Your task to perform on an android device: turn pop-ups off in chrome Image 0: 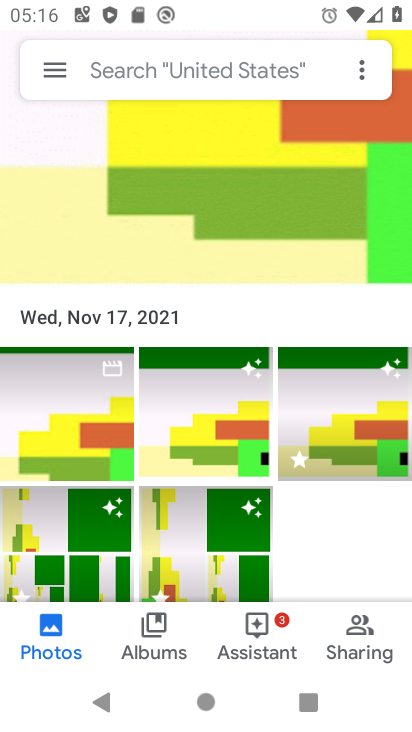
Step 0: press home button
Your task to perform on an android device: turn pop-ups off in chrome Image 1: 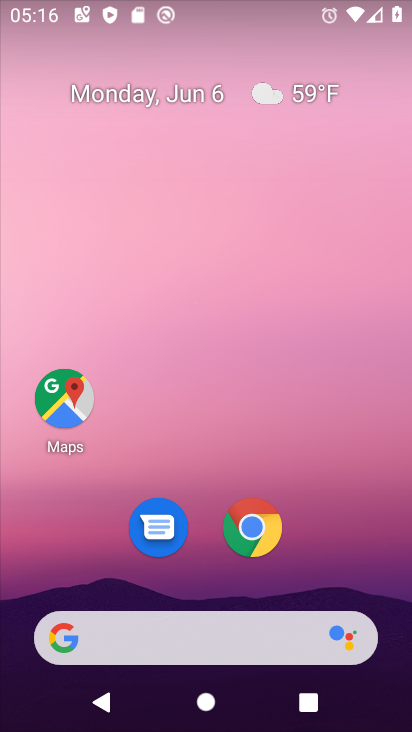
Step 1: drag from (394, 729) to (387, 471)
Your task to perform on an android device: turn pop-ups off in chrome Image 2: 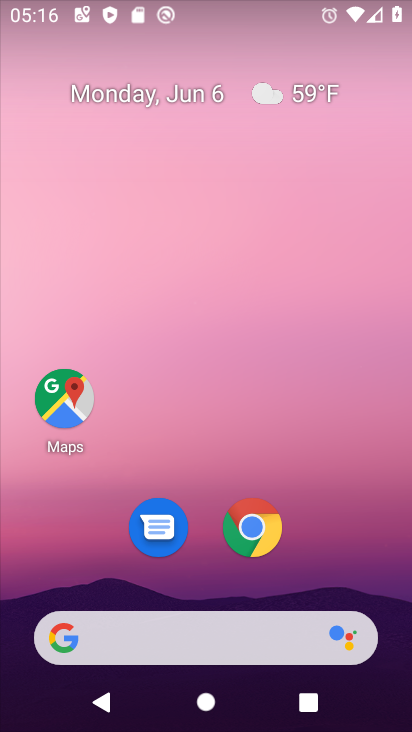
Step 2: click (261, 523)
Your task to perform on an android device: turn pop-ups off in chrome Image 3: 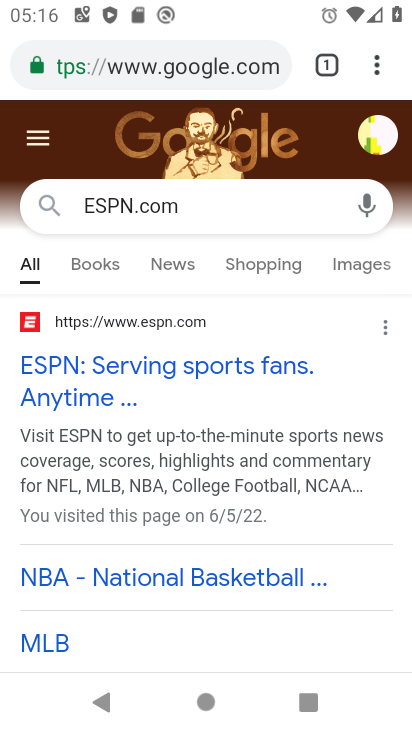
Step 3: click (375, 64)
Your task to perform on an android device: turn pop-ups off in chrome Image 4: 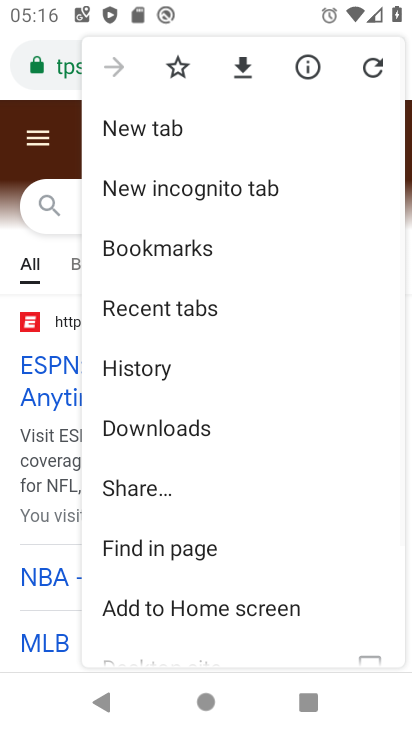
Step 4: drag from (282, 571) to (290, 325)
Your task to perform on an android device: turn pop-ups off in chrome Image 5: 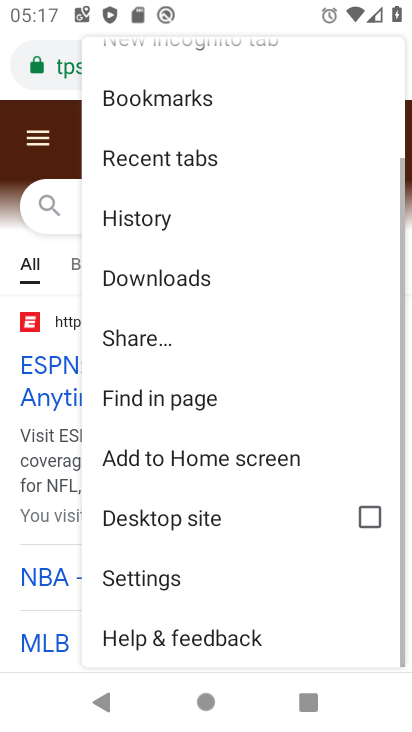
Step 5: click (151, 569)
Your task to perform on an android device: turn pop-ups off in chrome Image 6: 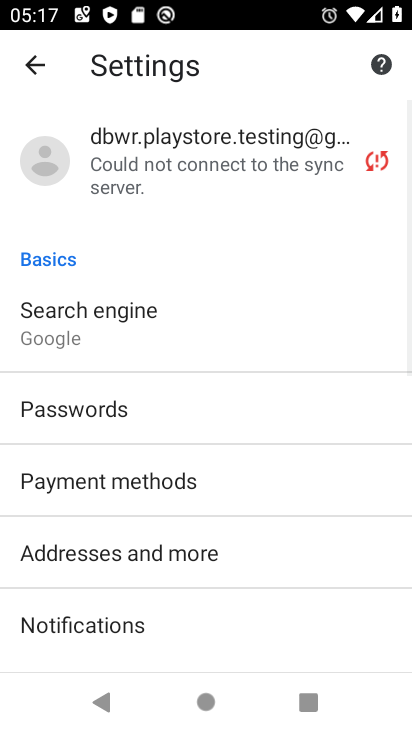
Step 6: drag from (247, 628) to (216, 273)
Your task to perform on an android device: turn pop-ups off in chrome Image 7: 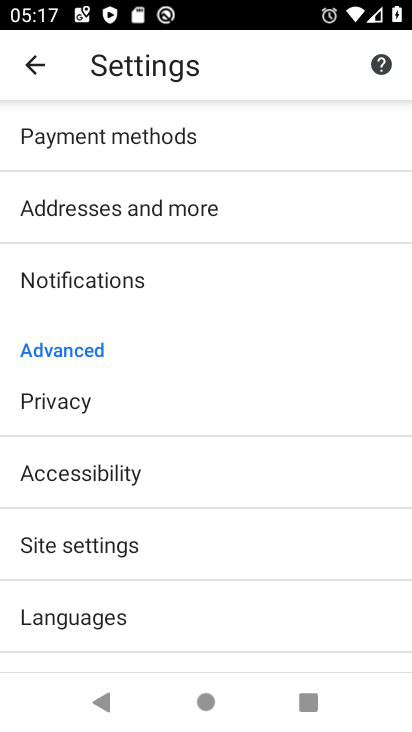
Step 7: drag from (241, 597) to (235, 317)
Your task to perform on an android device: turn pop-ups off in chrome Image 8: 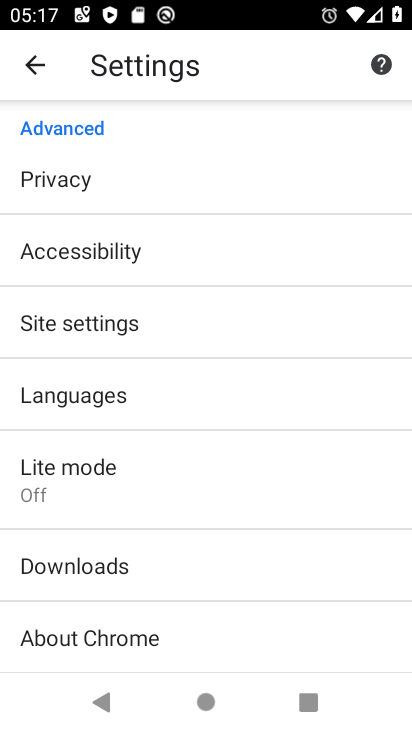
Step 8: drag from (265, 570) to (236, 223)
Your task to perform on an android device: turn pop-ups off in chrome Image 9: 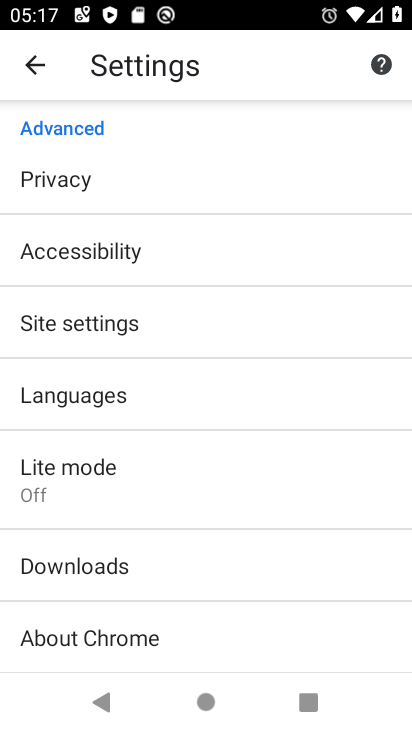
Step 9: click (67, 315)
Your task to perform on an android device: turn pop-ups off in chrome Image 10: 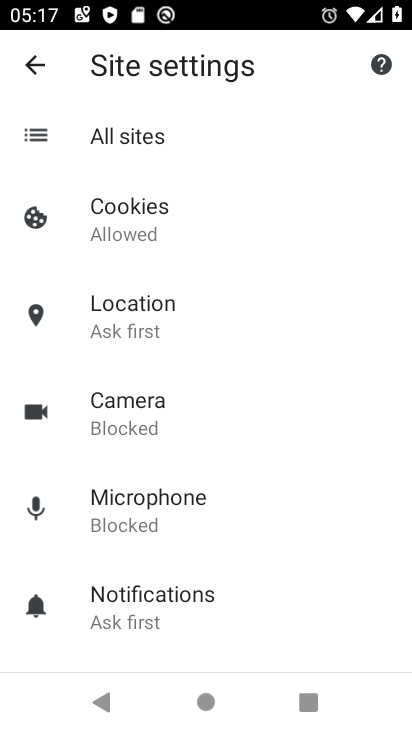
Step 10: drag from (228, 639) to (226, 275)
Your task to perform on an android device: turn pop-ups off in chrome Image 11: 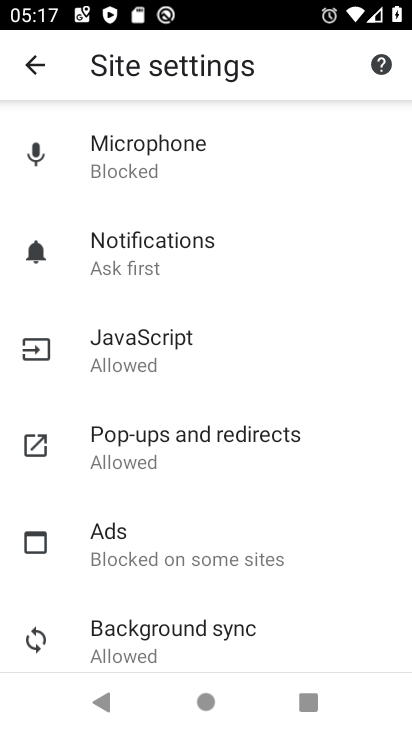
Step 11: click (204, 429)
Your task to perform on an android device: turn pop-ups off in chrome Image 12: 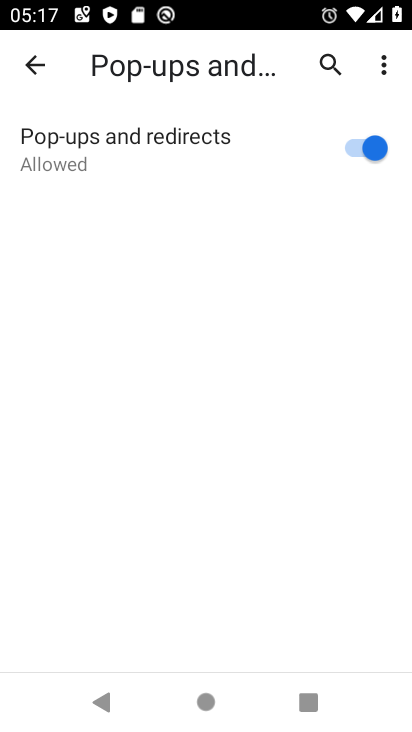
Step 12: click (355, 146)
Your task to perform on an android device: turn pop-ups off in chrome Image 13: 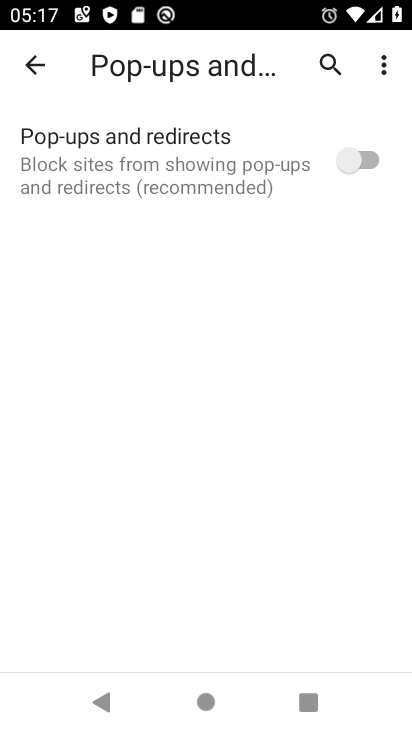
Step 13: task complete